Your task to perform on an android device: Open notification settings Image 0: 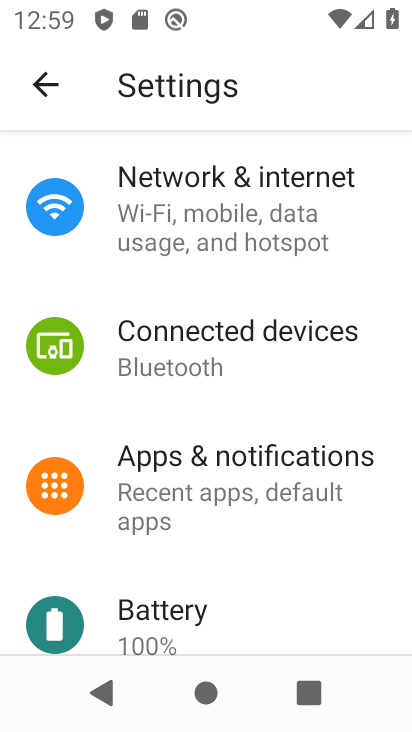
Step 0: click (221, 465)
Your task to perform on an android device: Open notification settings Image 1: 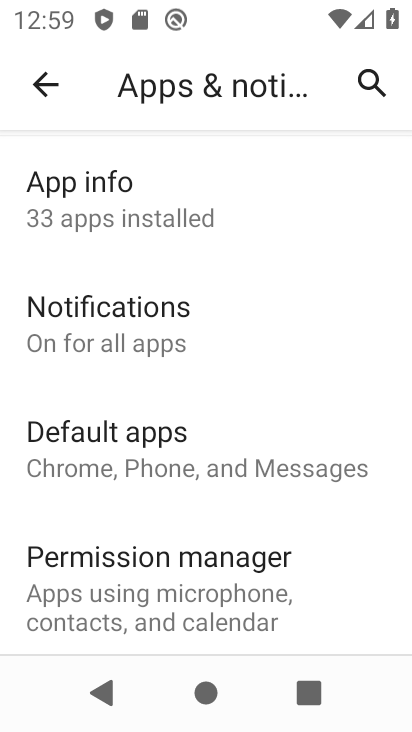
Step 1: task complete